Your task to perform on an android device: Open my contact list Image 0: 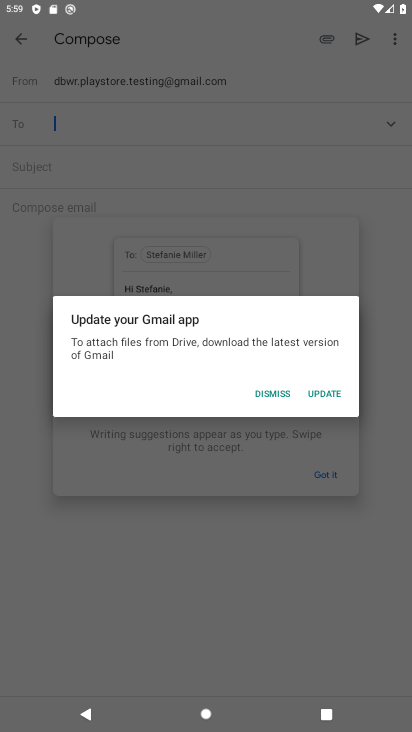
Step 0: press home button
Your task to perform on an android device: Open my contact list Image 1: 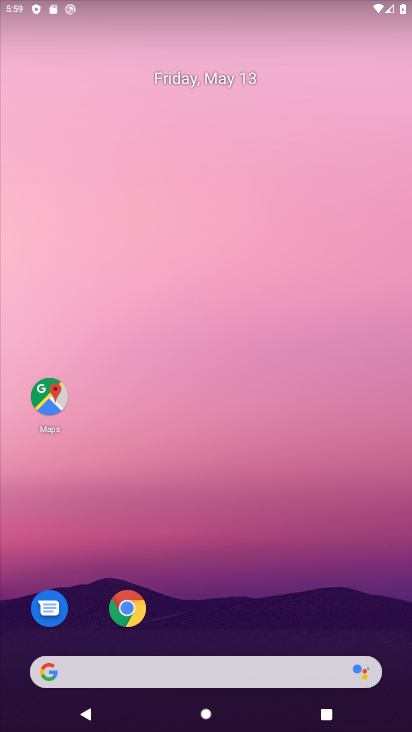
Step 1: drag from (198, 629) to (308, 4)
Your task to perform on an android device: Open my contact list Image 2: 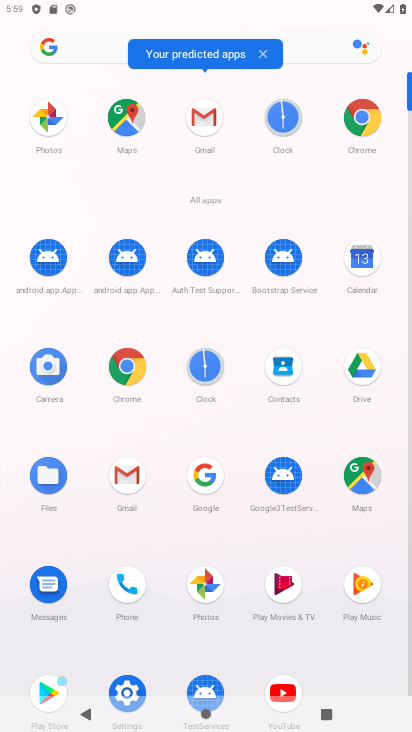
Step 2: click (292, 385)
Your task to perform on an android device: Open my contact list Image 3: 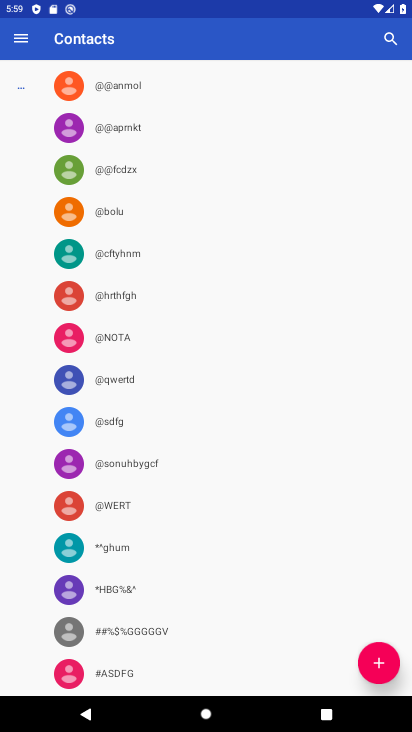
Step 3: task complete